Your task to perform on an android device: open wifi settings Image 0: 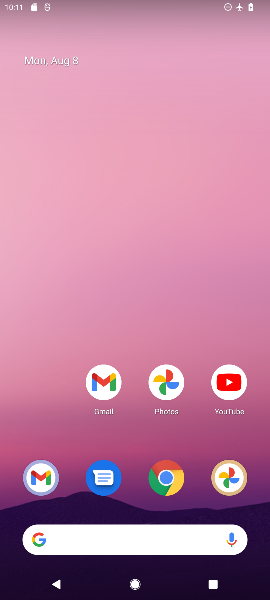
Step 0: drag from (140, 499) to (124, 98)
Your task to perform on an android device: open wifi settings Image 1: 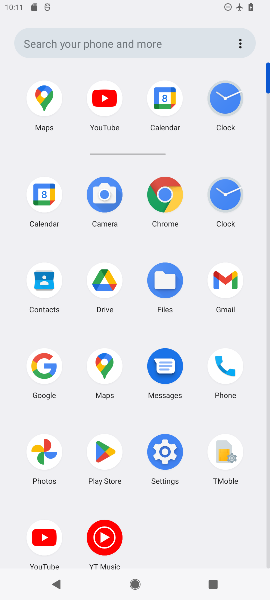
Step 1: click (173, 461)
Your task to perform on an android device: open wifi settings Image 2: 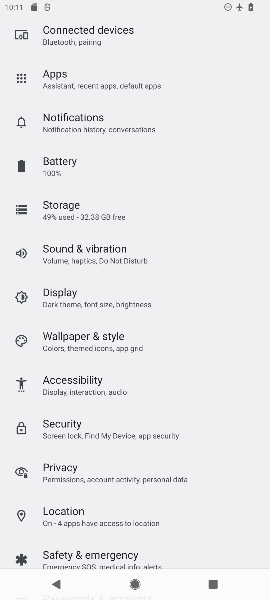
Step 2: drag from (101, 87) to (108, 434)
Your task to perform on an android device: open wifi settings Image 3: 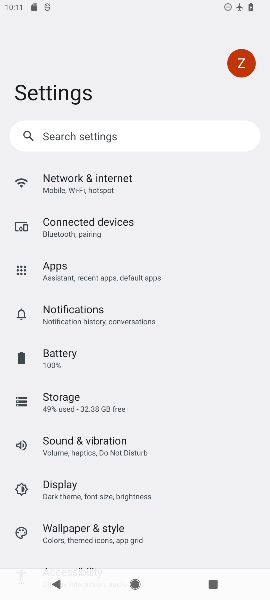
Step 3: click (109, 188)
Your task to perform on an android device: open wifi settings Image 4: 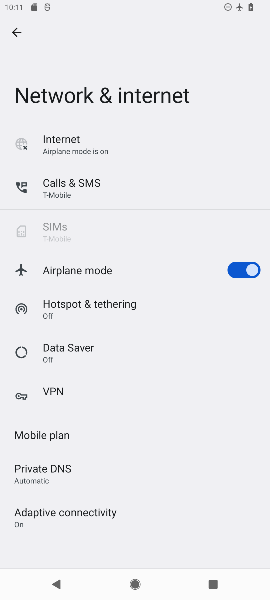
Step 4: click (65, 151)
Your task to perform on an android device: open wifi settings Image 5: 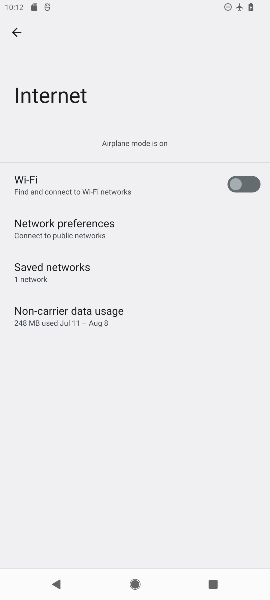
Step 5: task complete